Your task to perform on an android device: move an email to a new category in the gmail app Image 0: 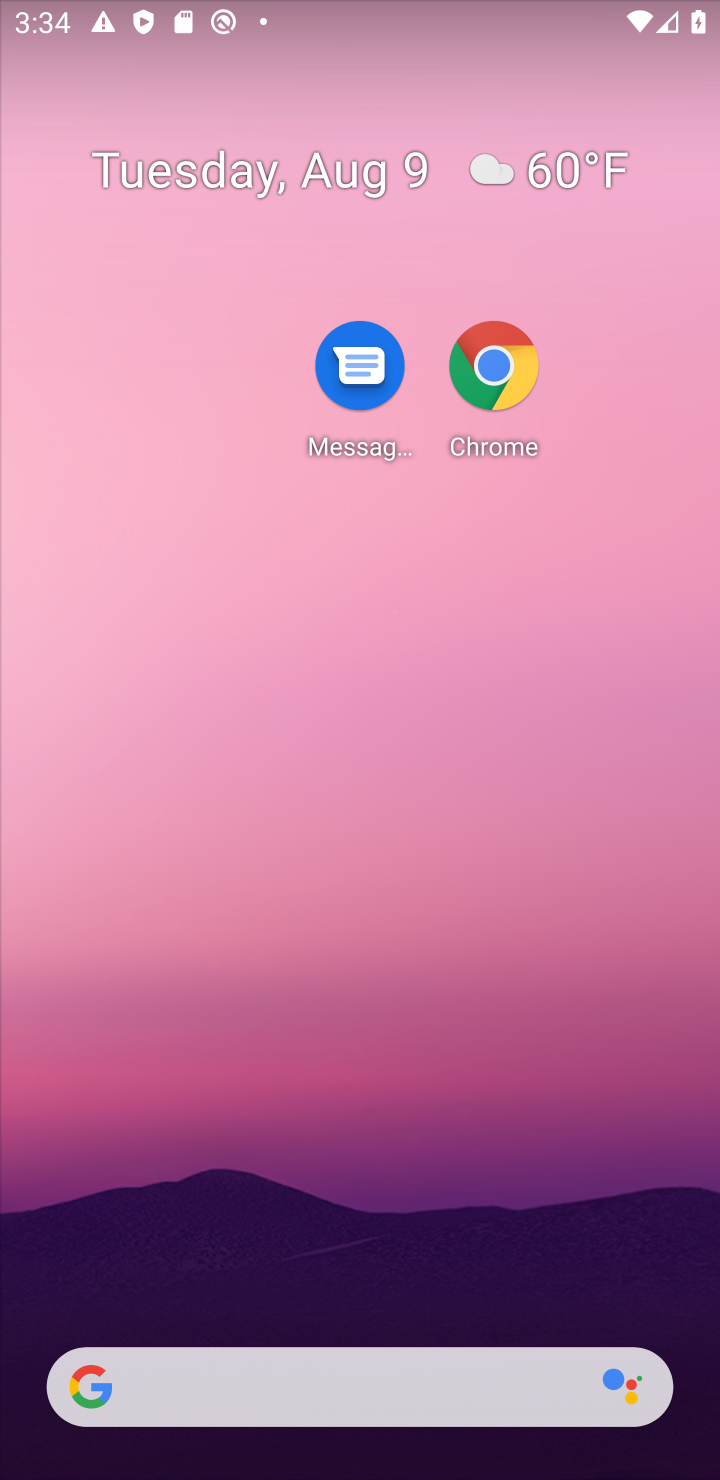
Step 0: drag from (563, 1227) to (470, 148)
Your task to perform on an android device: move an email to a new category in the gmail app Image 1: 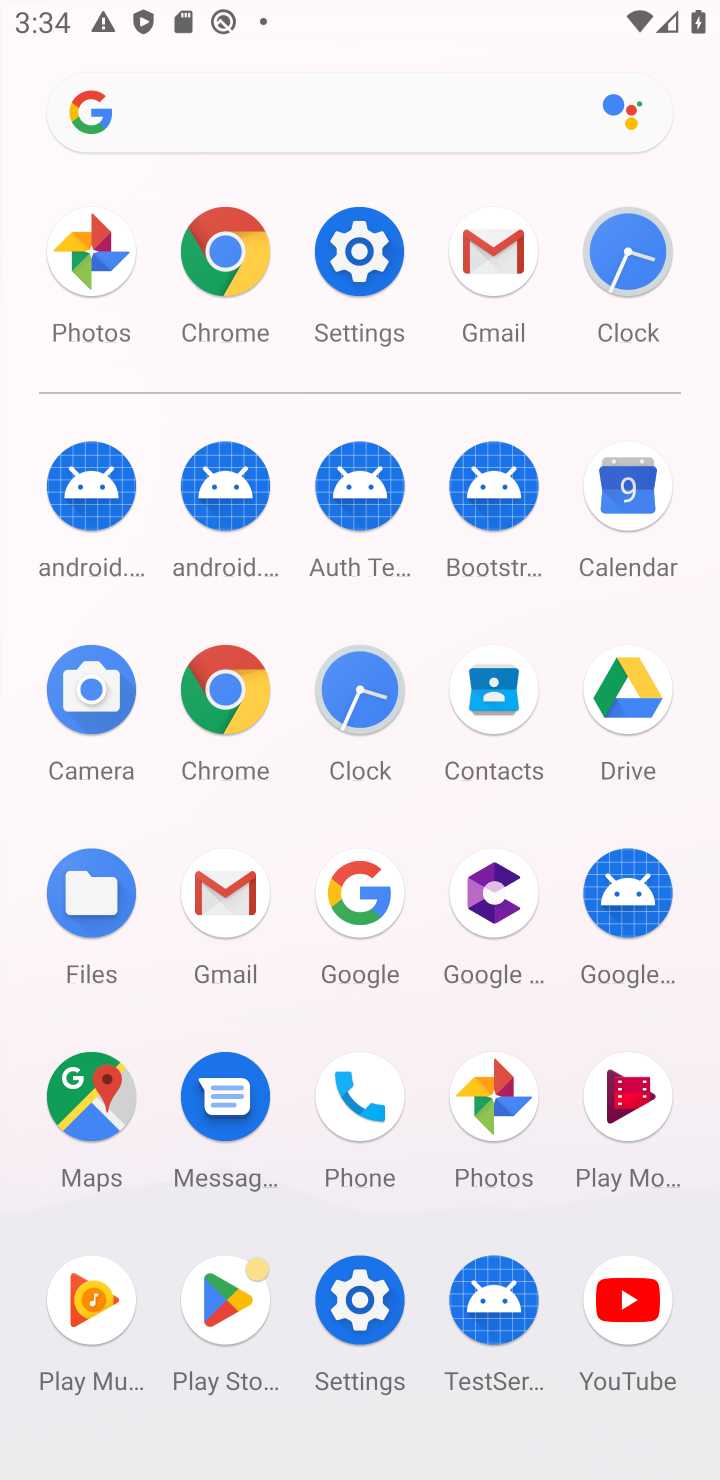
Step 1: click (504, 242)
Your task to perform on an android device: move an email to a new category in the gmail app Image 2: 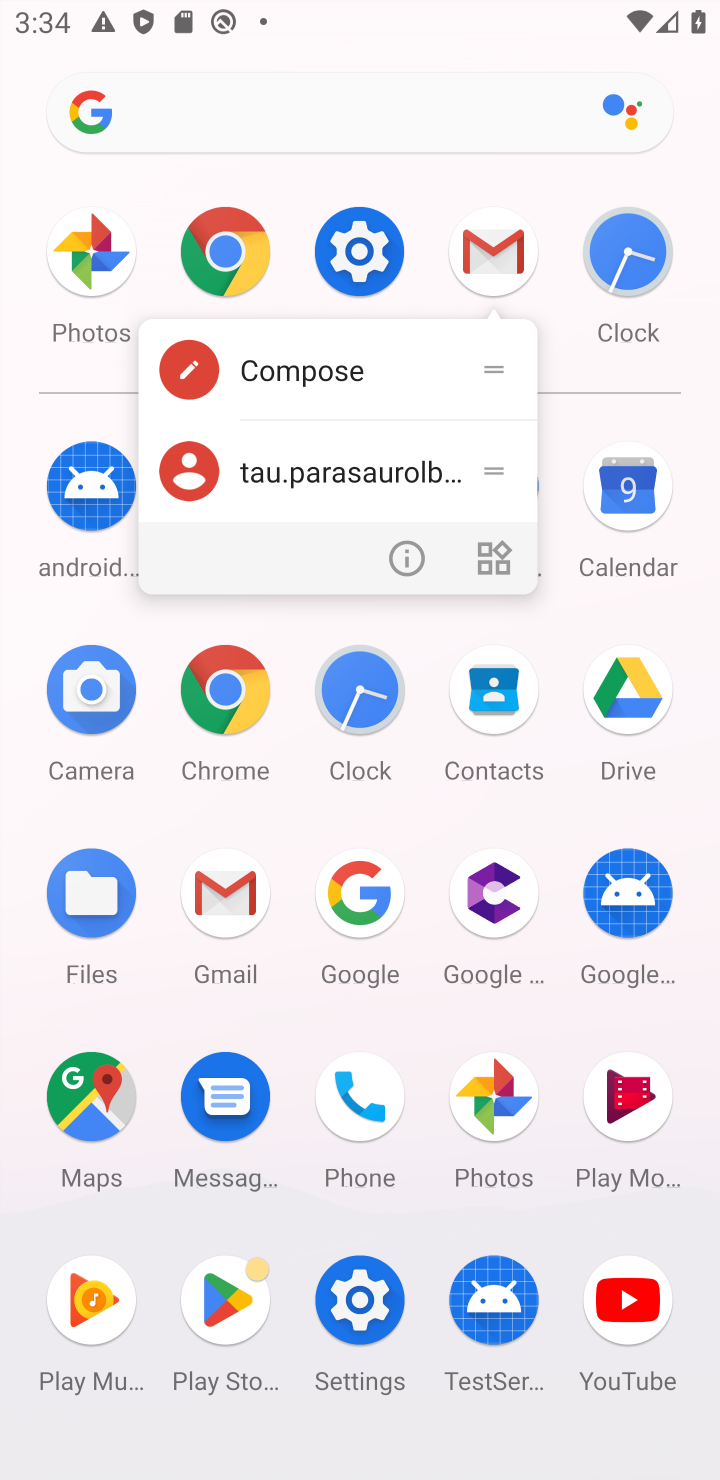
Step 2: click (504, 242)
Your task to perform on an android device: move an email to a new category in the gmail app Image 3: 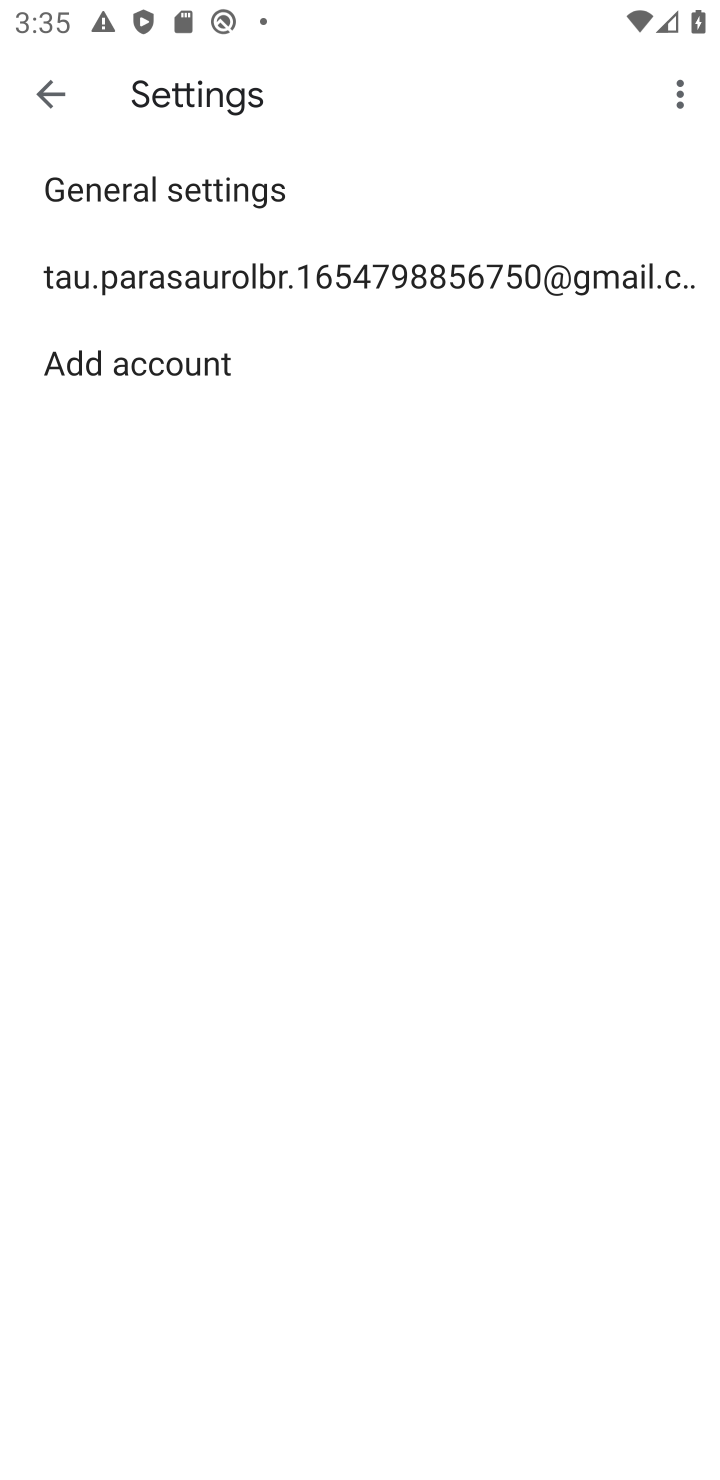
Step 3: click (50, 117)
Your task to perform on an android device: move an email to a new category in the gmail app Image 4: 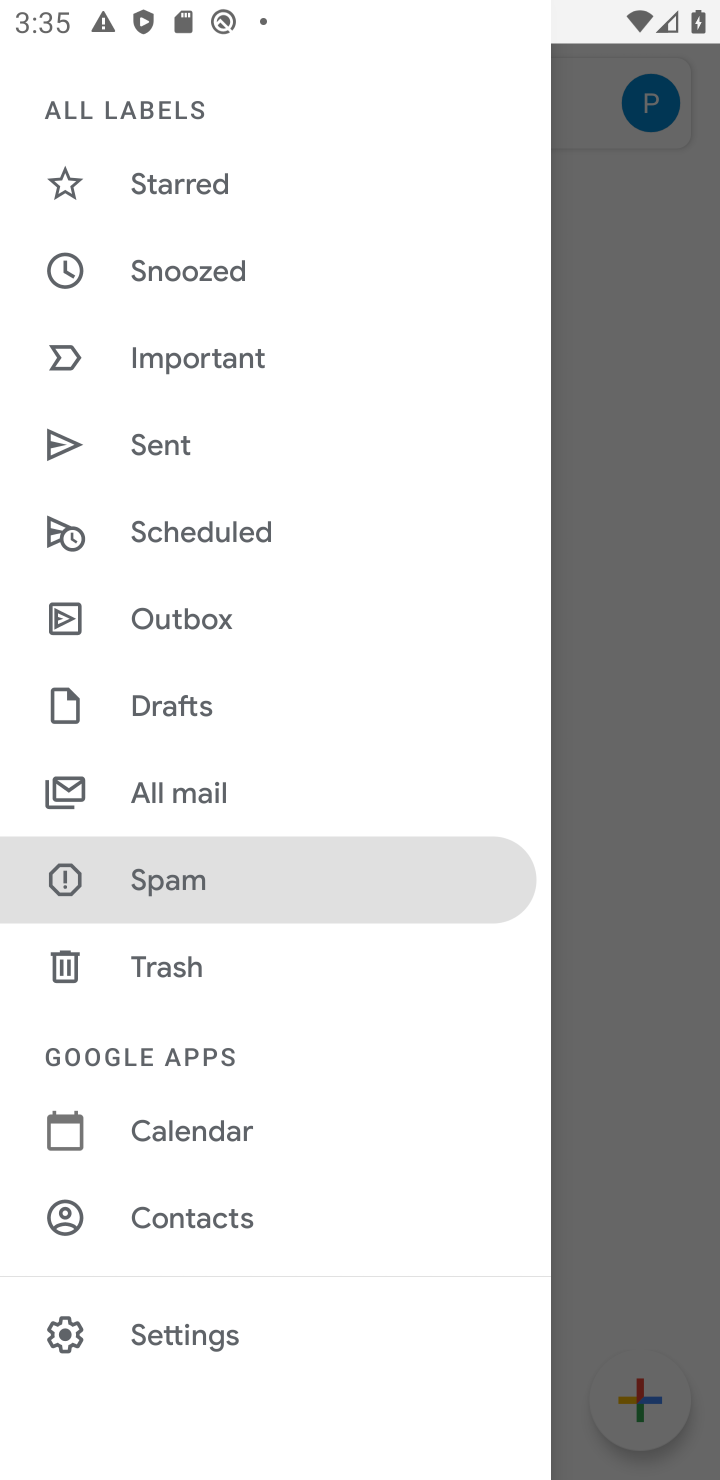
Step 4: click (221, 783)
Your task to perform on an android device: move an email to a new category in the gmail app Image 5: 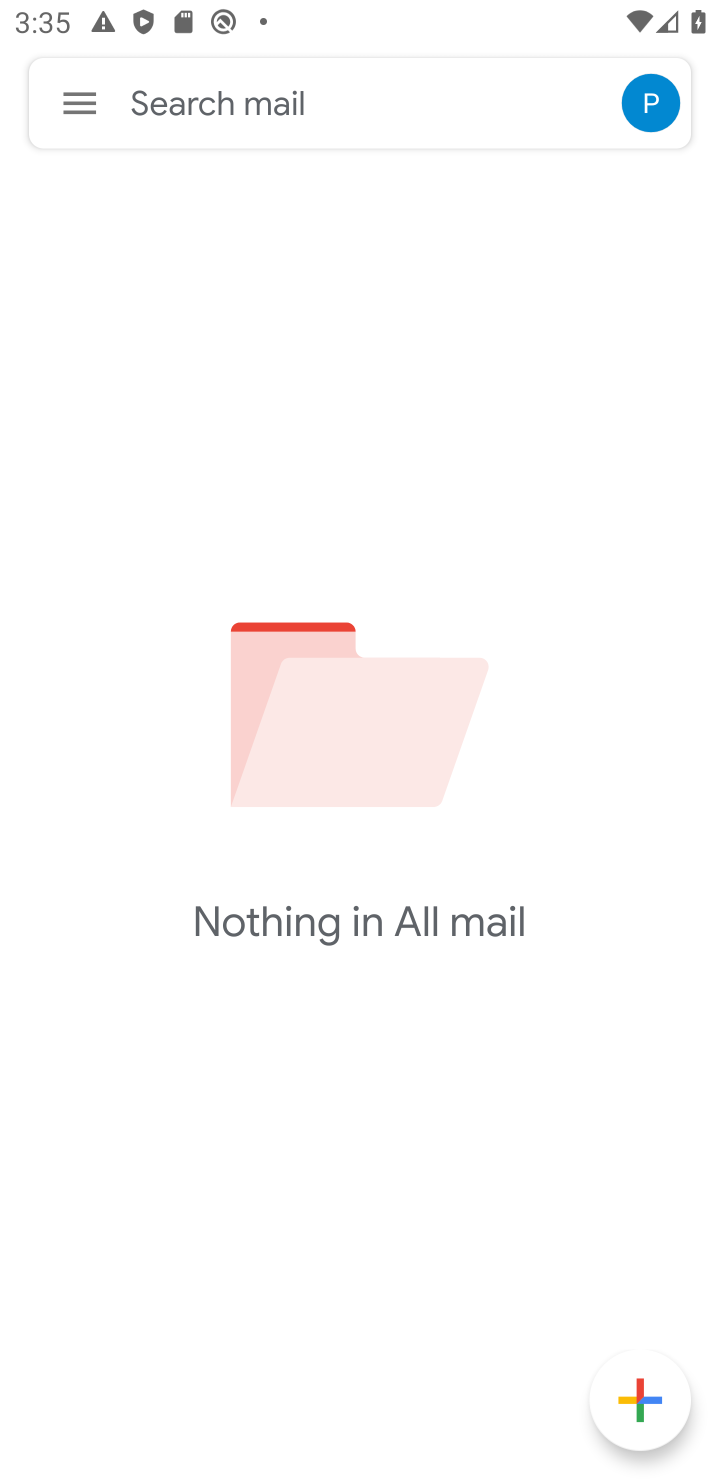
Step 5: task complete